Your task to perform on an android device: Open the calendar and show me this week's events? Image 0: 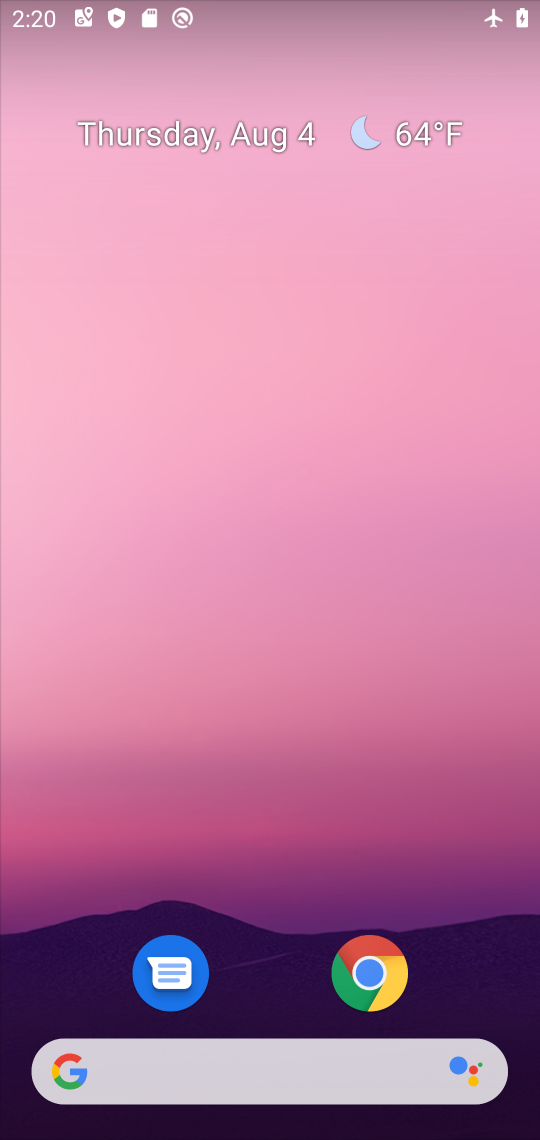
Step 0: drag from (313, 1027) to (171, 103)
Your task to perform on an android device: Open the calendar and show me this week's events? Image 1: 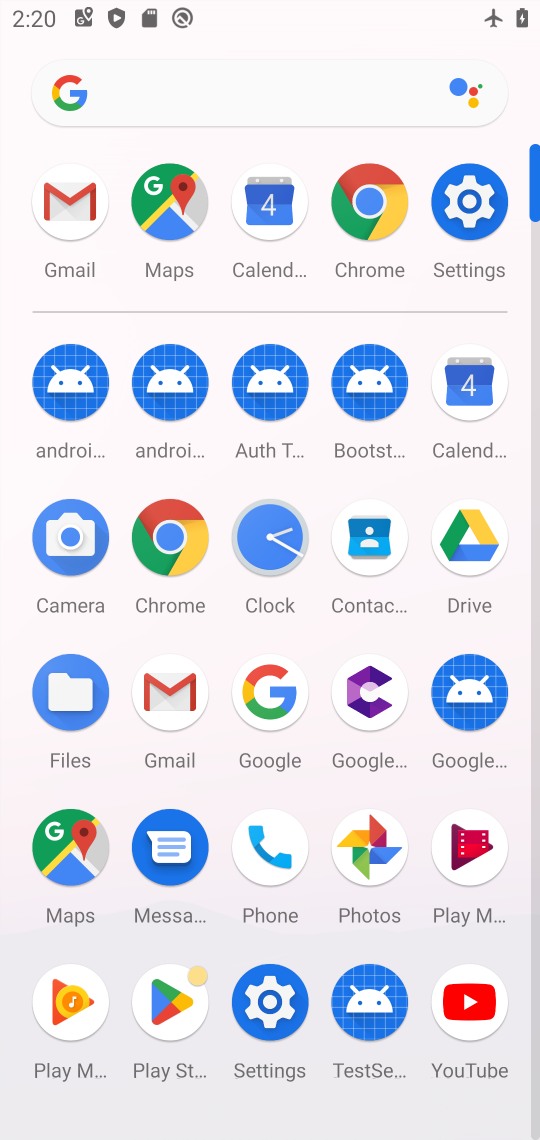
Step 1: click (450, 422)
Your task to perform on an android device: Open the calendar and show me this week's events? Image 2: 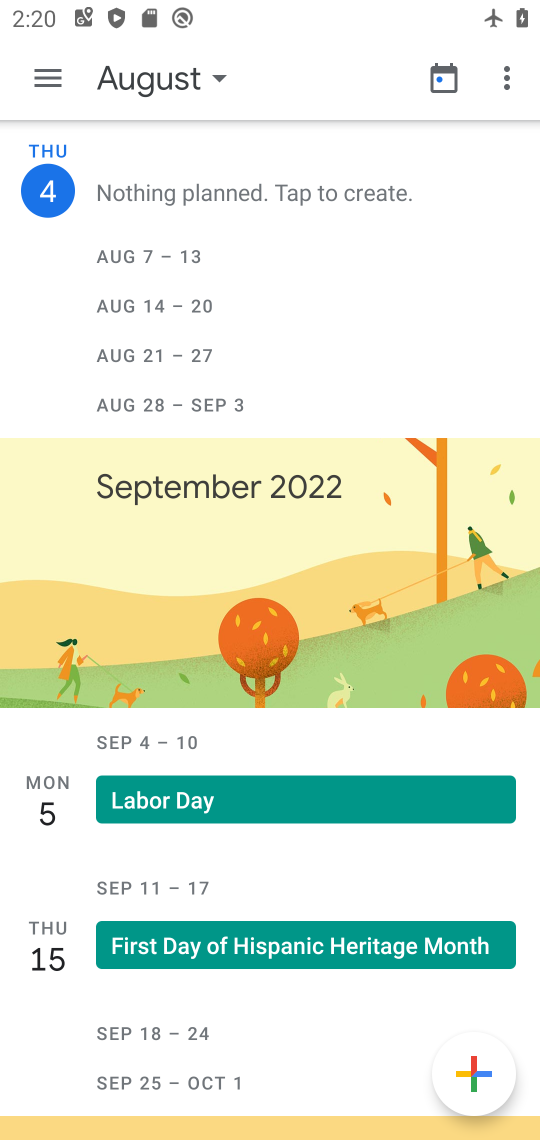
Step 2: click (22, 87)
Your task to perform on an android device: Open the calendar and show me this week's events? Image 3: 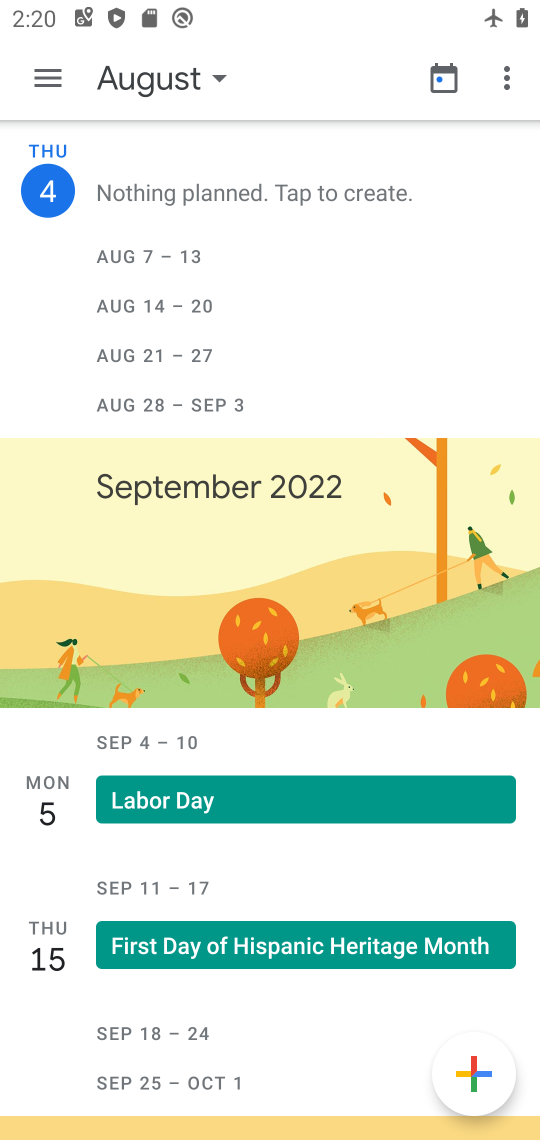
Step 3: click (40, 72)
Your task to perform on an android device: Open the calendar and show me this week's events? Image 4: 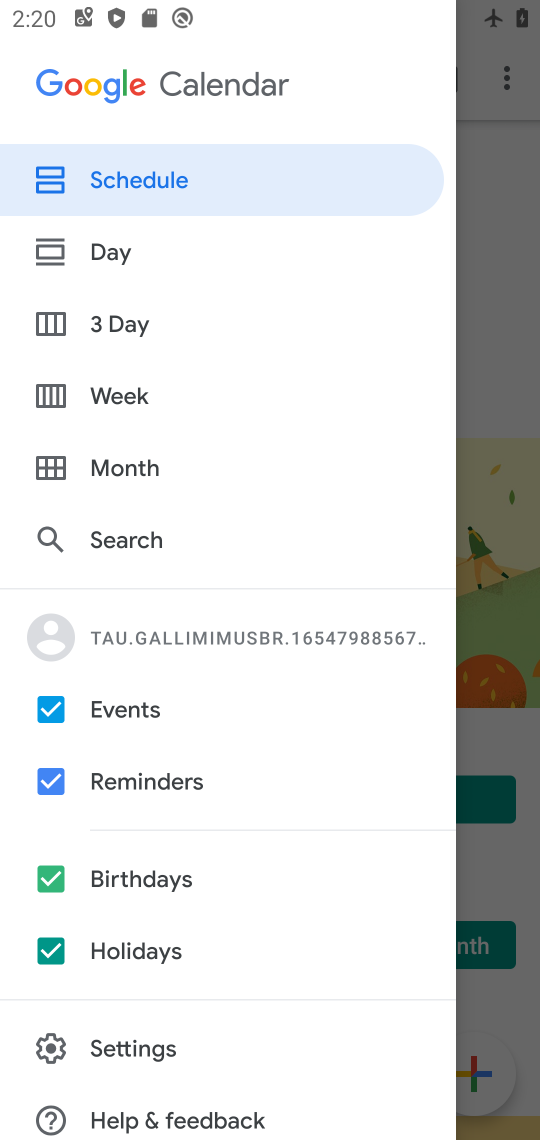
Step 4: click (138, 395)
Your task to perform on an android device: Open the calendar and show me this week's events? Image 5: 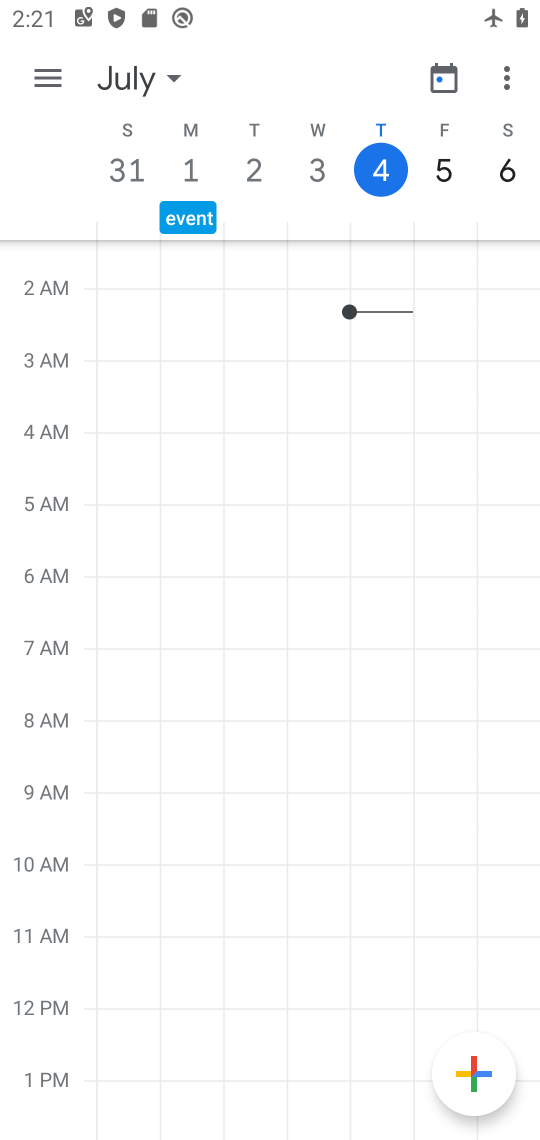
Step 5: task complete